Your task to perform on an android device: turn off javascript in the chrome app Image 0: 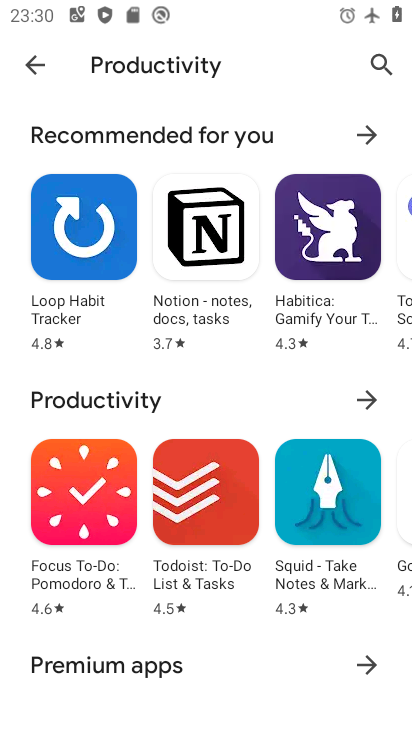
Step 0: press home button
Your task to perform on an android device: turn off javascript in the chrome app Image 1: 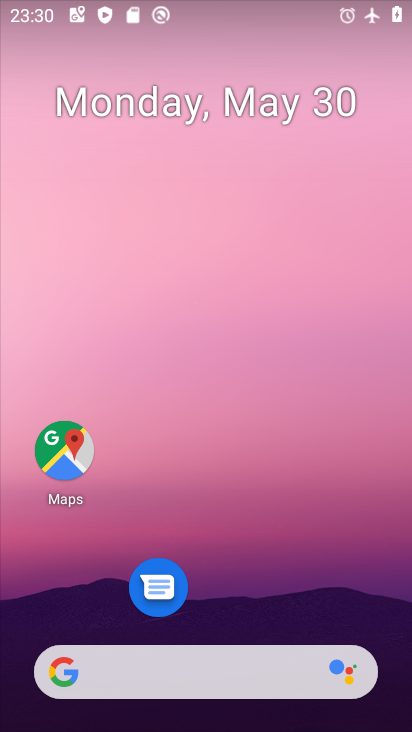
Step 1: drag from (234, 615) to (176, 109)
Your task to perform on an android device: turn off javascript in the chrome app Image 2: 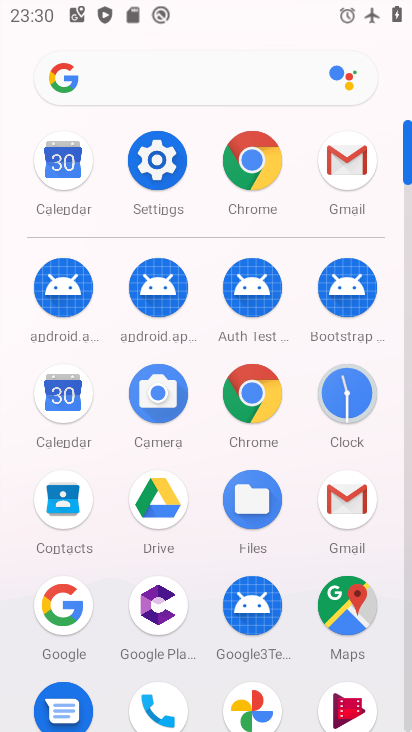
Step 2: click (253, 381)
Your task to perform on an android device: turn off javascript in the chrome app Image 3: 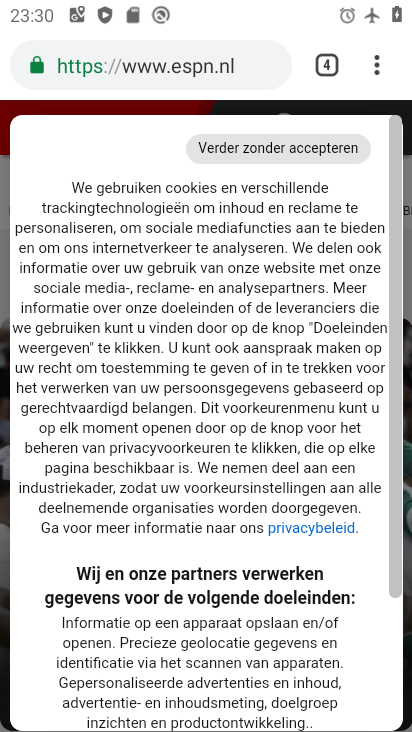
Step 3: click (376, 72)
Your task to perform on an android device: turn off javascript in the chrome app Image 4: 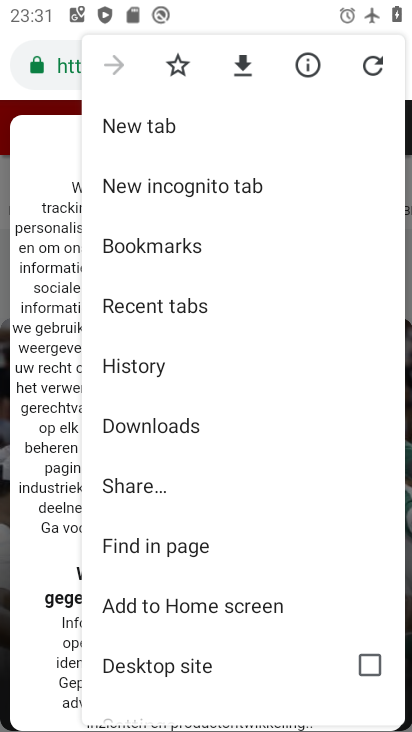
Step 4: drag from (181, 655) to (216, 121)
Your task to perform on an android device: turn off javascript in the chrome app Image 5: 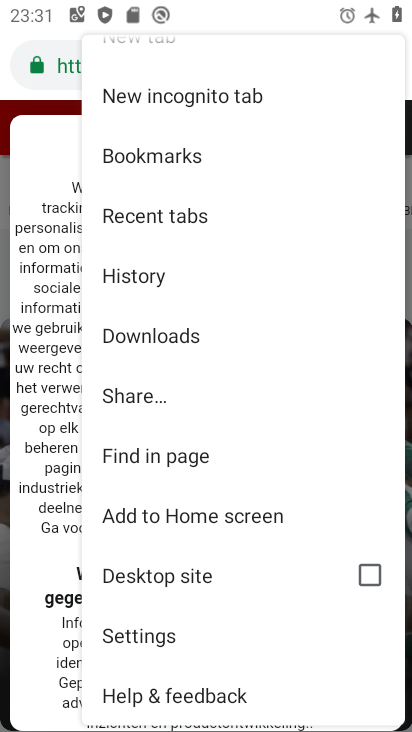
Step 5: click (149, 624)
Your task to perform on an android device: turn off javascript in the chrome app Image 6: 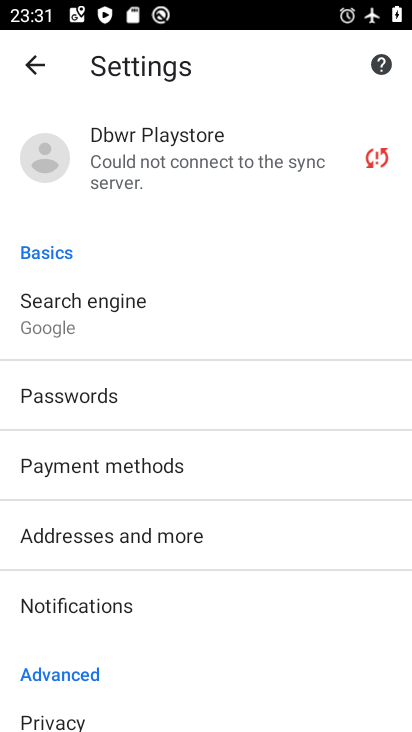
Step 6: drag from (111, 643) to (86, 181)
Your task to perform on an android device: turn off javascript in the chrome app Image 7: 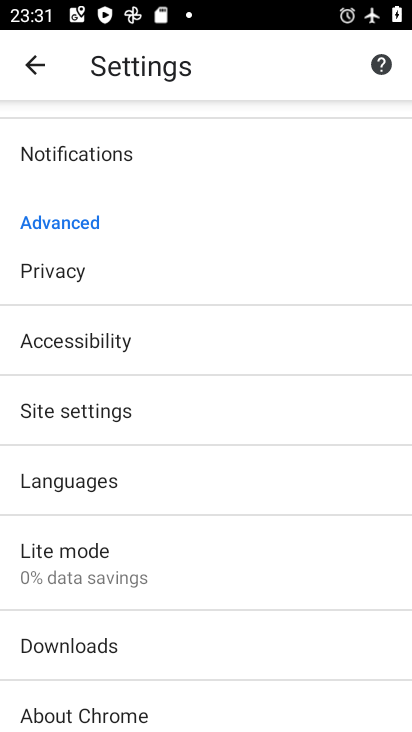
Step 7: click (94, 419)
Your task to perform on an android device: turn off javascript in the chrome app Image 8: 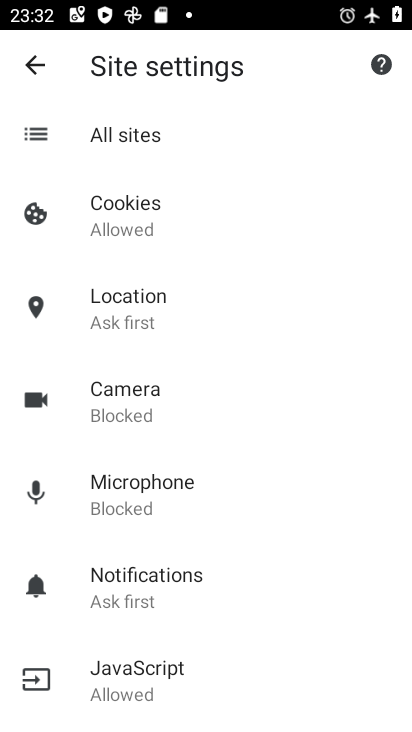
Step 8: click (179, 662)
Your task to perform on an android device: turn off javascript in the chrome app Image 9: 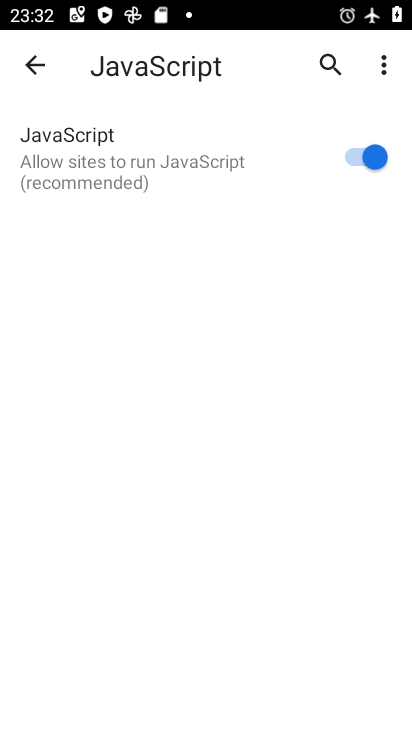
Step 9: click (350, 168)
Your task to perform on an android device: turn off javascript in the chrome app Image 10: 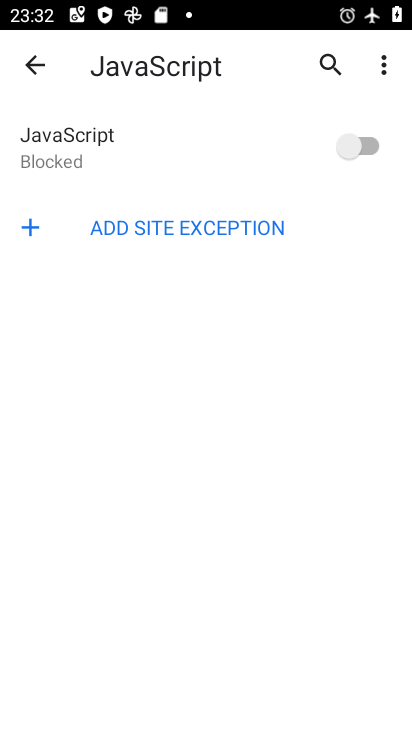
Step 10: task complete